Your task to perform on an android device: Open calendar and show me the third week of next month Image 0: 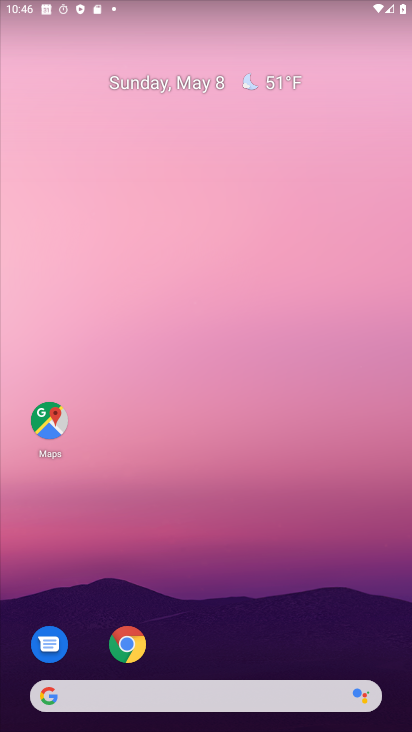
Step 0: drag from (200, 654) to (276, 279)
Your task to perform on an android device: Open calendar and show me the third week of next month Image 1: 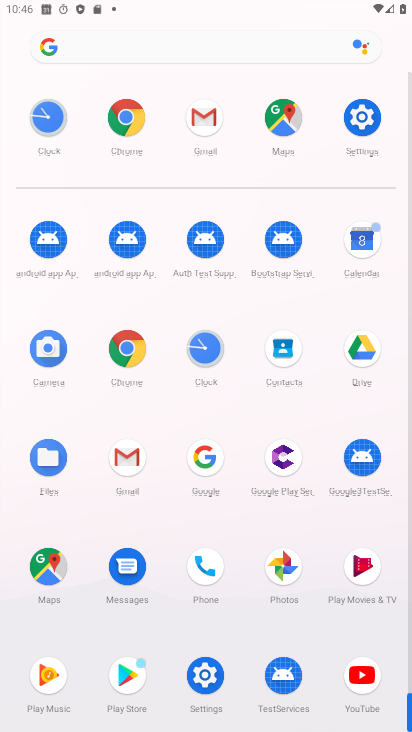
Step 1: drag from (237, 656) to (275, 286)
Your task to perform on an android device: Open calendar and show me the third week of next month Image 2: 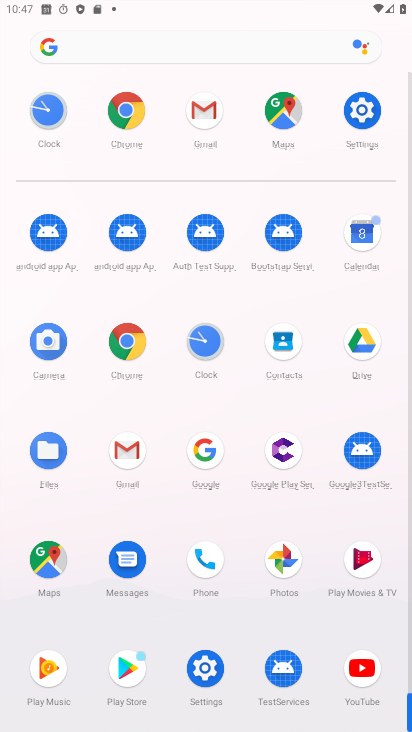
Step 2: drag from (180, 643) to (140, 282)
Your task to perform on an android device: Open calendar and show me the third week of next month Image 3: 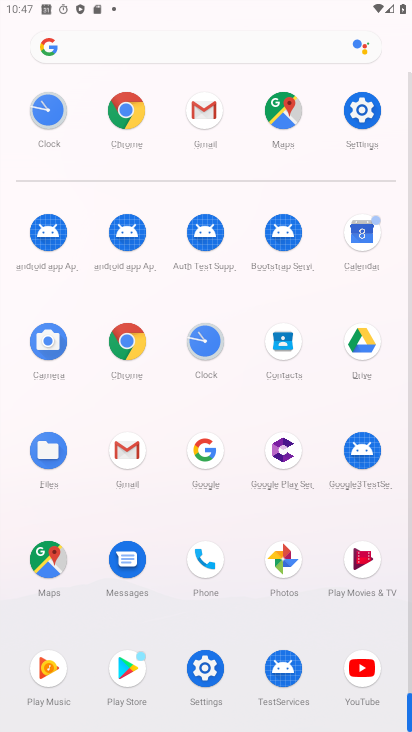
Step 3: click (364, 243)
Your task to perform on an android device: Open calendar and show me the third week of next month Image 4: 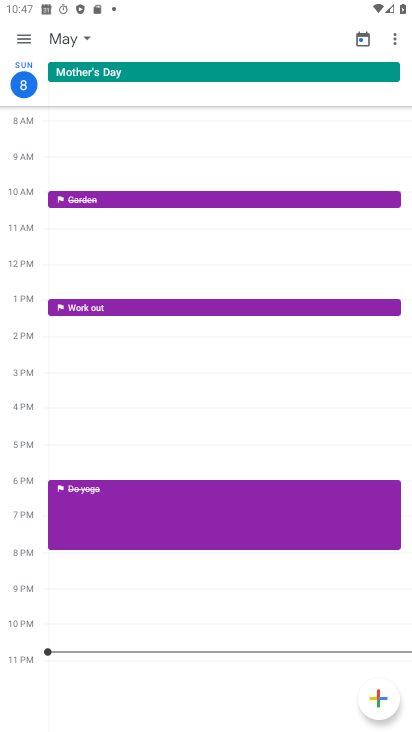
Step 4: drag from (179, 604) to (236, 696)
Your task to perform on an android device: Open calendar and show me the third week of next month Image 5: 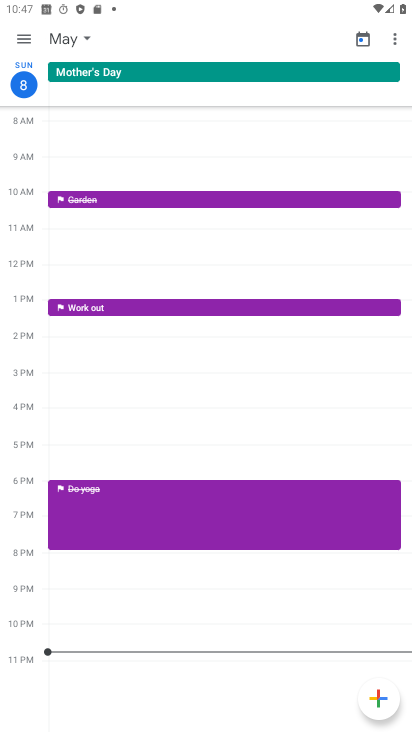
Step 5: drag from (260, 237) to (278, 596)
Your task to perform on an android device: Open calendar and show me the third week of next month Image 6: 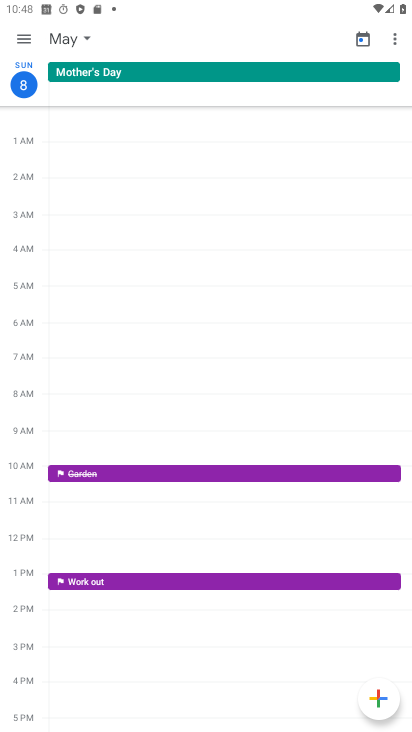
Step 6: drag from (257, 599) to (316, 380)
Your task to perform on an android device: Open calendar and show me the third week of next month Image 7: 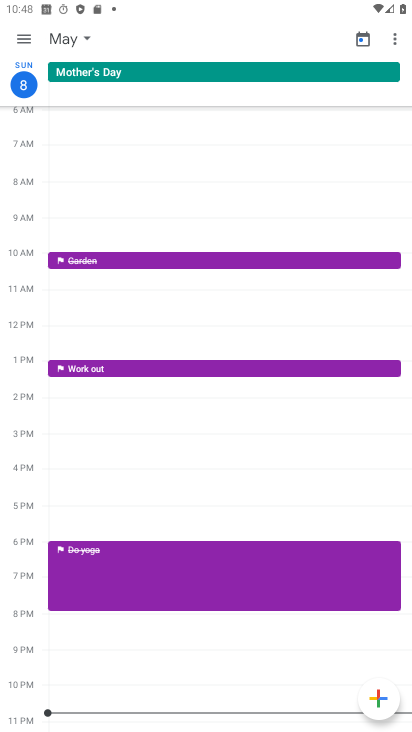
Step 7: click (213, 555)
Your task to perform on an android device: Open calendar and show me the third week of next month Image 8: 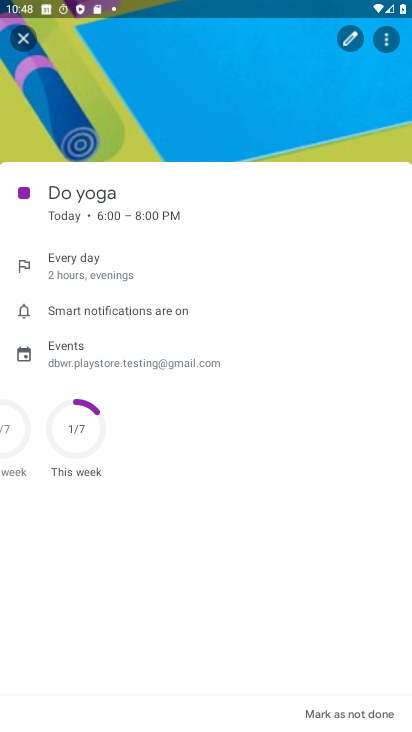
Step 8: click (29, 28)
Your task to perform on an android device: Open calendar and show me the third week of next month Image 9: 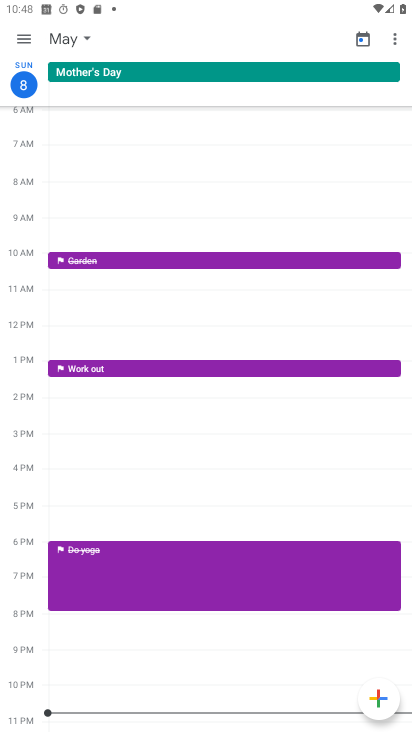
Step 9: click (73, 32)
Your task to perform on an android device: Open calendar and show me the third week of next month Image 10: 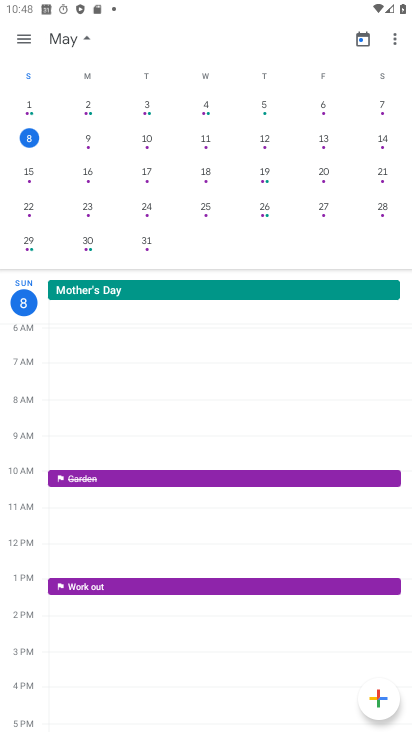
Step 10: drag from (325, 165) to (14, 169)
Your task to perform on an android device: Open calendar and show me the third week of next month Image 11: 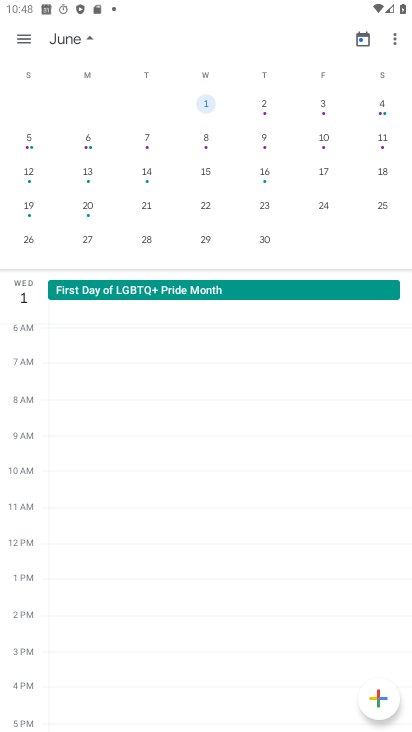
Step 11: click (207, 173)
Your task to perform on an android device: Open calendar and show me the third week of next month Image 12: 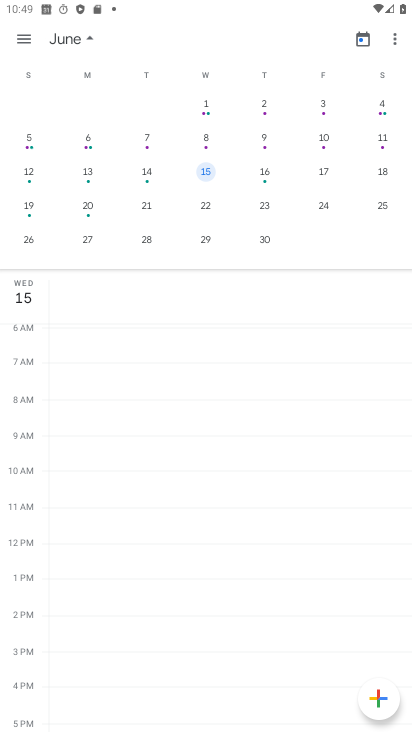
Step 12: task complete